Your task to perform on an android device: see creations saved in the google photos Image 0: 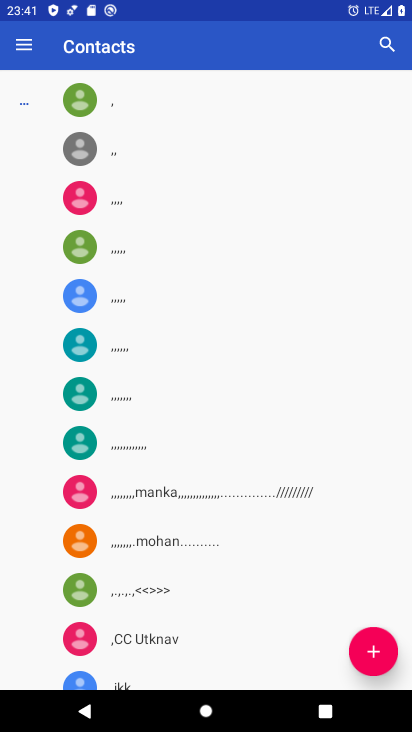
Step 0: drag from (201, 597) to (275, 268)
Your task to perform on an android device: see creations saved in the google photos Image 1: 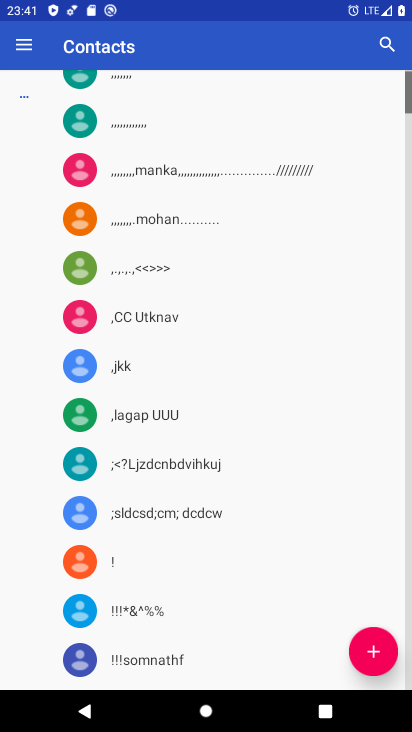
Step 1: press home button
Your task to perform on an android device: see creations saved in the google photos Image 2: 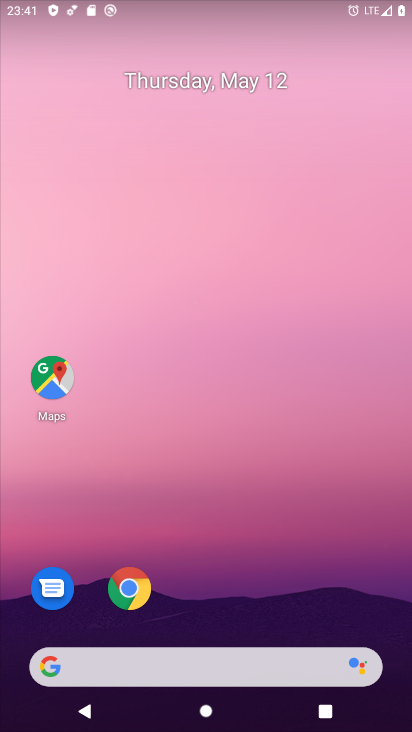
Step 2: drag from (214, 625) to (219, 437)
Your task to perform on an android device: see creations saved in the google photos Image 3: 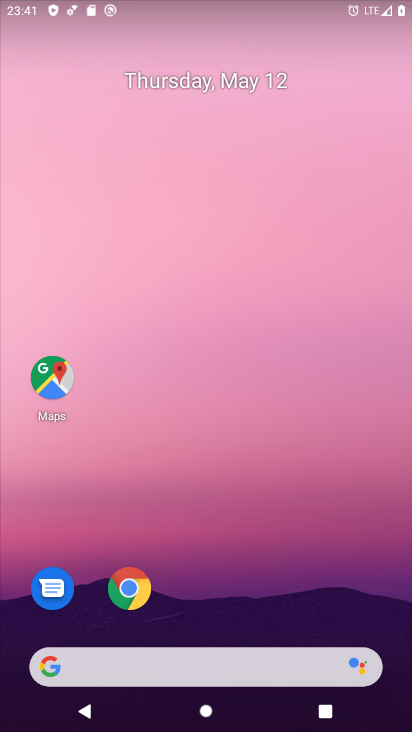
Step 3: drag from (215, 587) to (264, 201)
Your task to perform on an android device: see creations saved in the google photos Image 4: 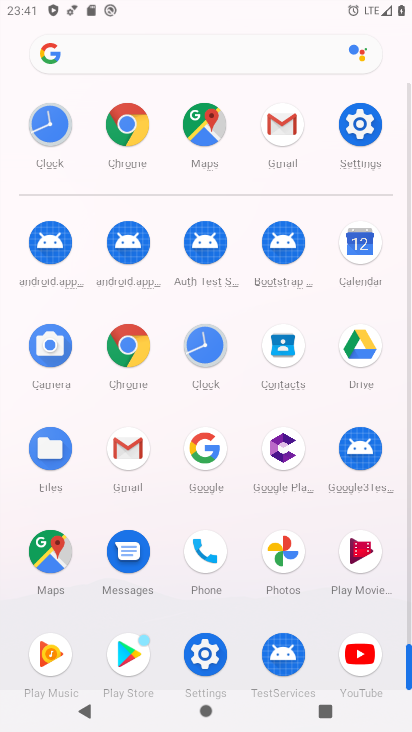
Step 4: click (294, 552)
Your task to perform on an android device: see creations saved in the google photos Image 5: 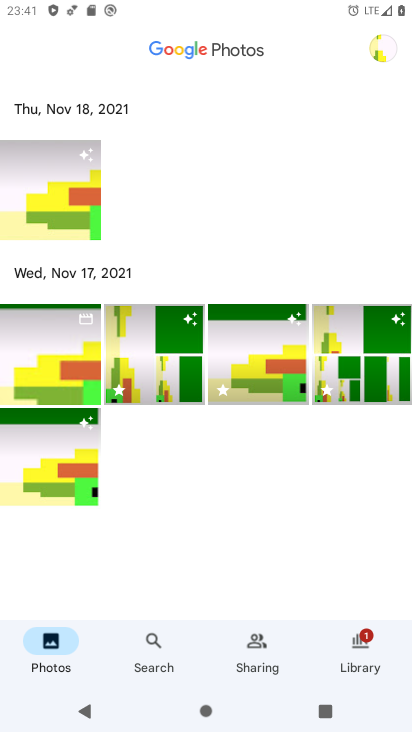
Step 5: click (153, 634)
Your task to perform on an android device: see creations saved in the google photos Image 6: 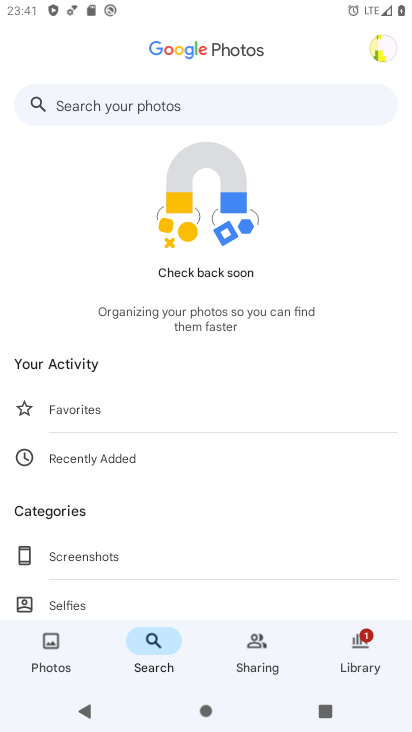
Step 6: drag from (170, 506) to (246, 60)
Your task to perform on an android device: see creations saved in the google photos Image 7: 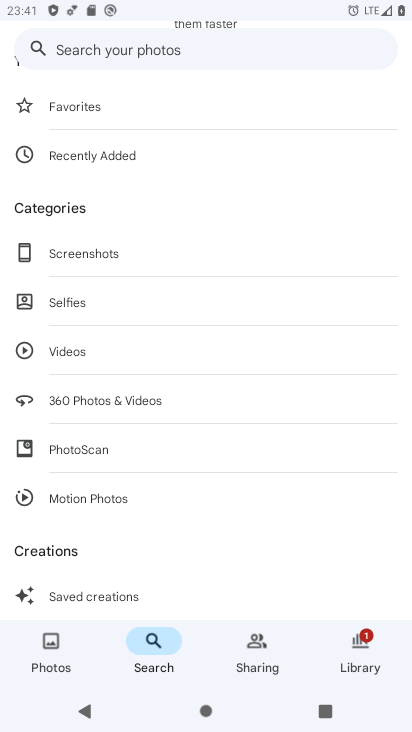
Step 7: click (119, 584)
Your task to perform on an android device: see creations saved in the google photos Image 8: 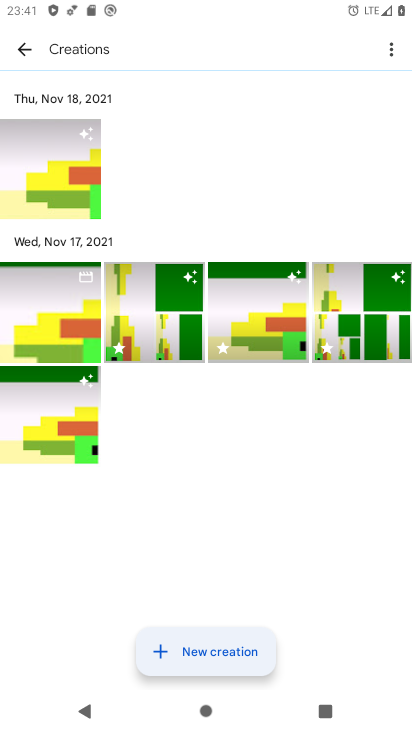
Step 8: drag from (150, 392) to (238, 109)
Your task to perform on an android device: see creations saved in the google photos Image 9: 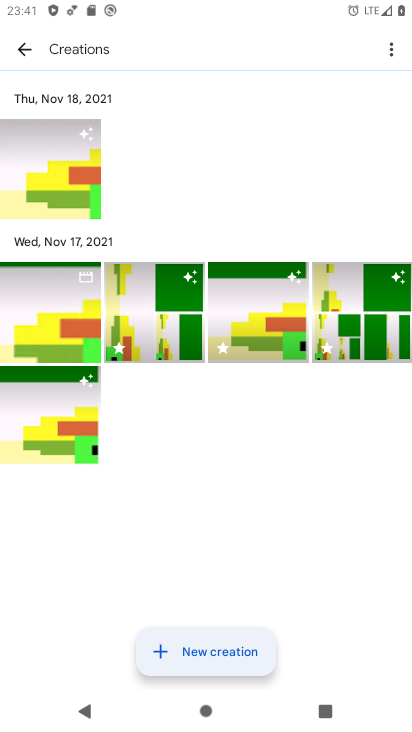
Step 9: click (151, 329)
Your task to perform on an android device: see creations saved in the google photos Image 10: 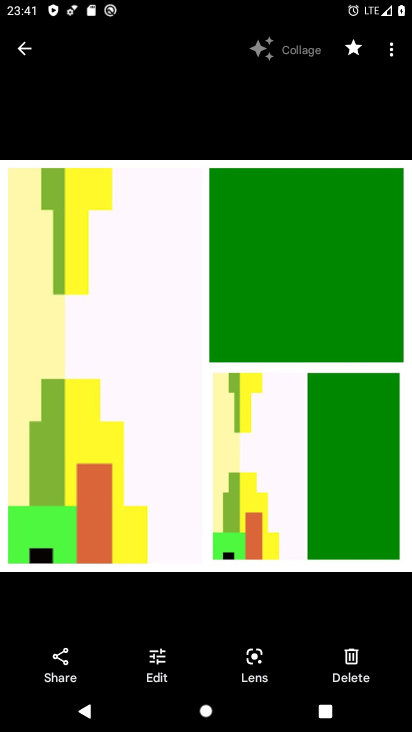
Step 10: task complete